Your task to perform on an android device: Open Youtube and go to the subscriptions tab Image 0: 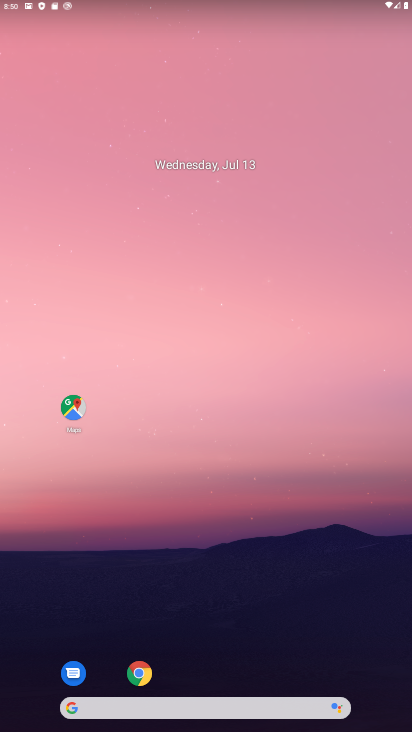
Step 0: drag from (196, 702) to (261, 261)
Your task to perform on an android device: Open Youtube and go to the subscriptions tab Image 1: 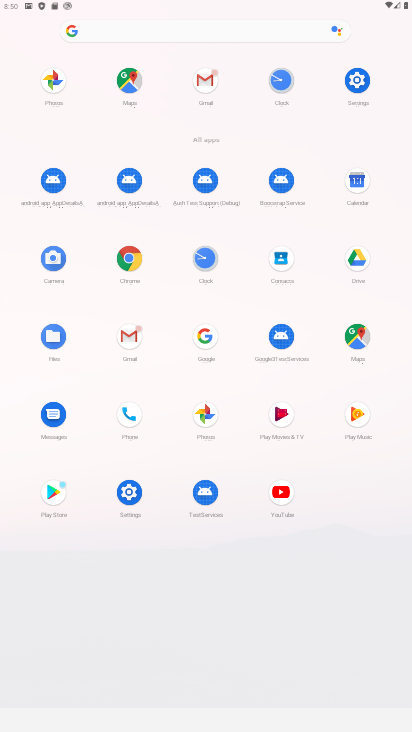
Step 1: click (281, 494)
Your task to perform on an android device: Open Youtube and go to the subscriptions tab Image 2: 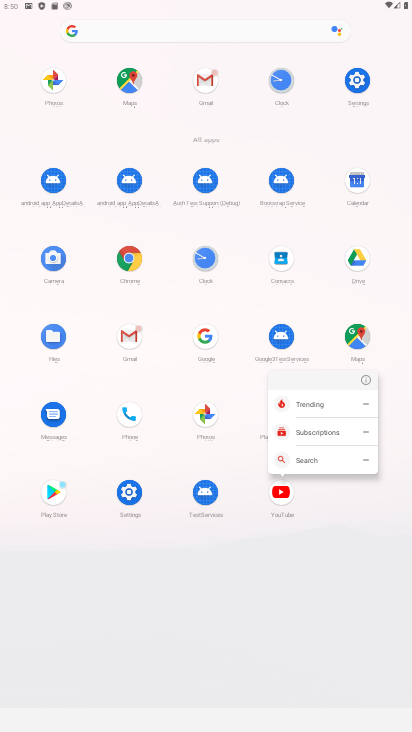
Step 2: click (360, 381)
Your task to perform on an android device: Open Youtube and go to the subscriptions tab Image 3: 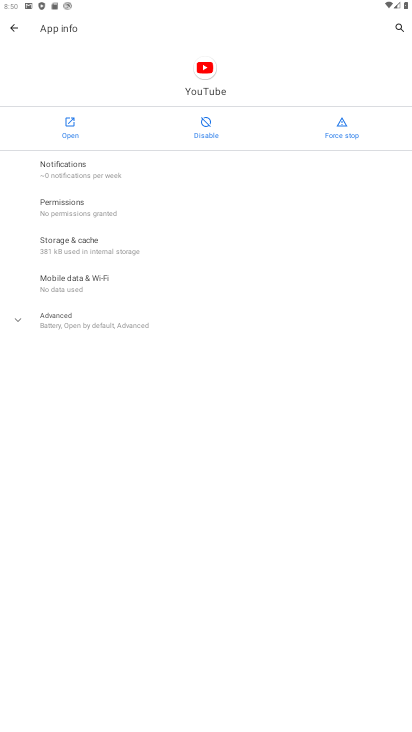
Step 3: click (76, 141)
Your task to perform on an android device: Open Youtube and go to the subscriptions tab Image 4: 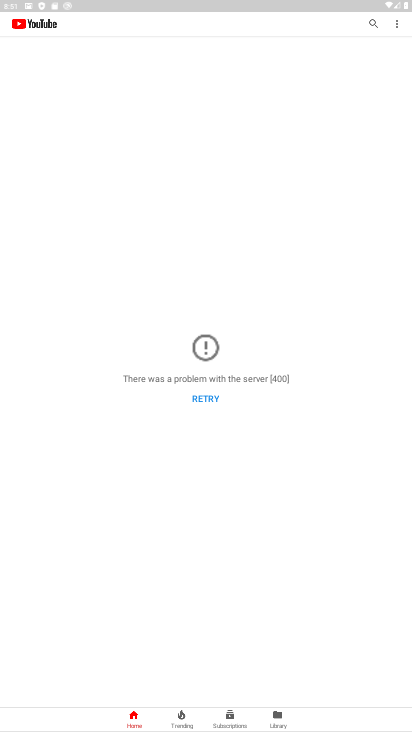
Step 4: task complete